Your task to perform on an android device: Search for pizza restaurants on Maps Image 0: 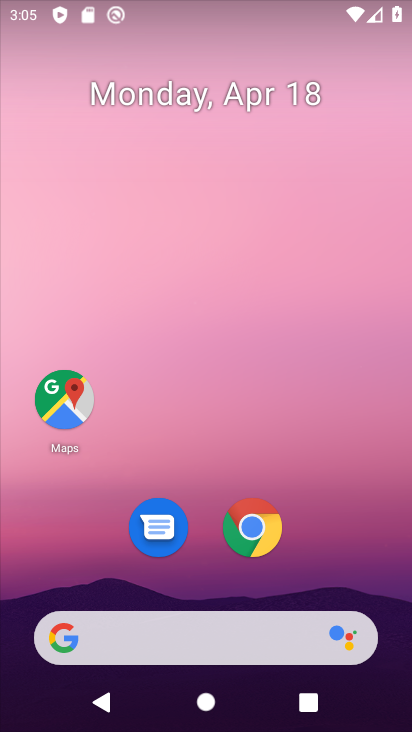
Step 0: click (68, 405)
Your task to perform on an android device: Search for pizza restaurants on Maps Image 1: 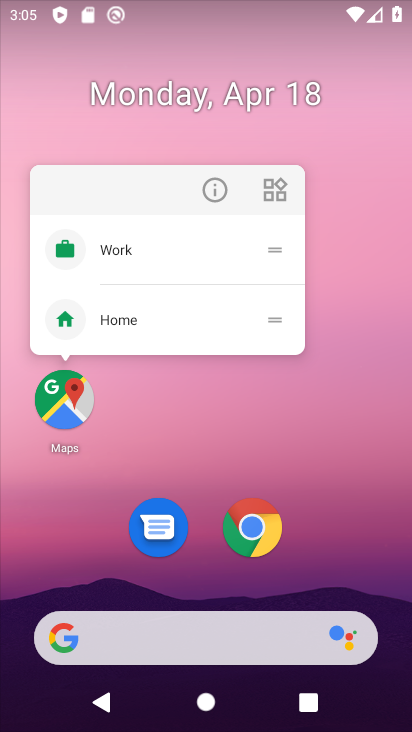
Step 1: click (64, 405)
Your task to perform on an android device: Search for pizza restaurants on Maps Image 2: 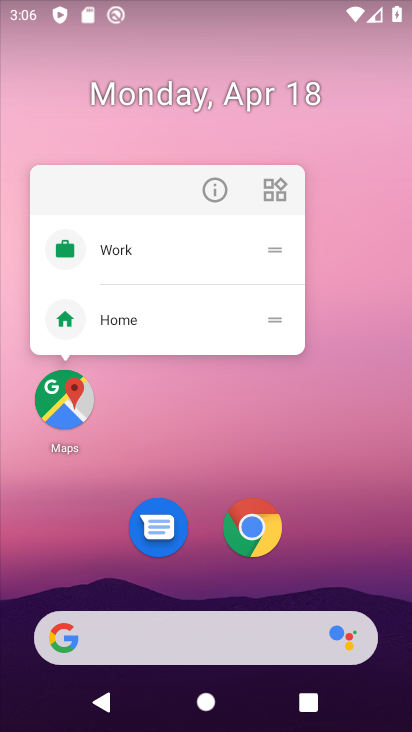
Step 2: click (75, 401)
Your task to perform on an android device: Search for pizza restaurants on Maps Image 3: 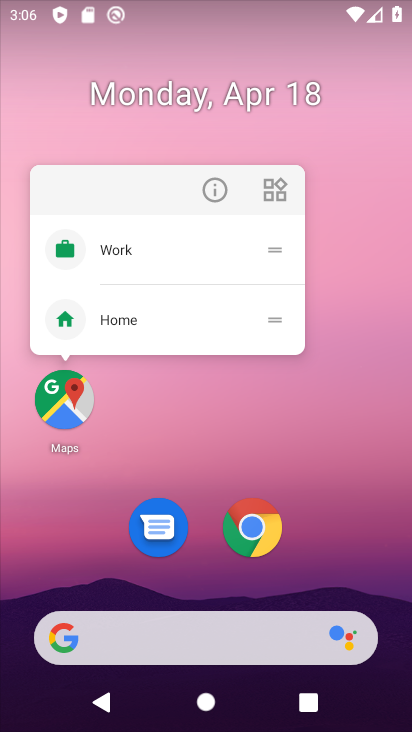
Step 3: click (75, 401)
Your task to perform on an android device: Search for pizza restaurants on Maps Image 4: 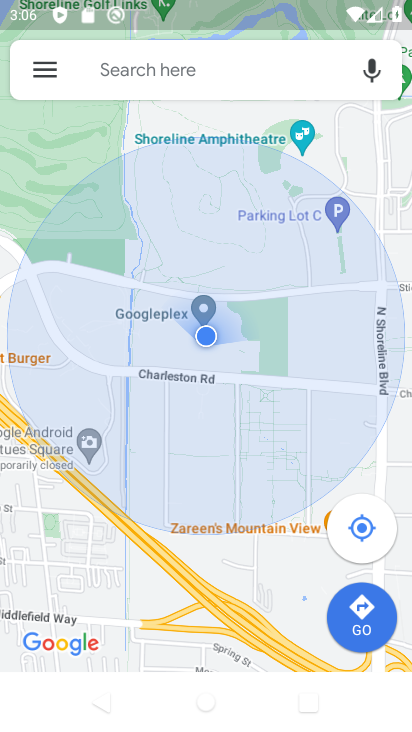
Step 4: click (177, 78)
Your task to perform on an android device: Search for pizza restaurants on Maps Image 5: 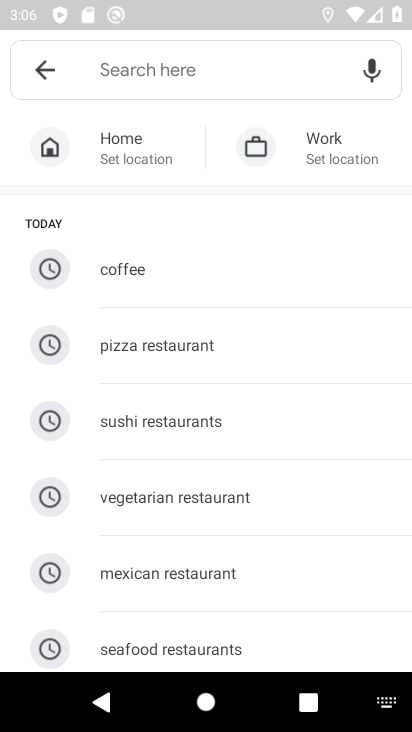
Step 5: click (152, 348)
Your task to perform on an android device: Search for pizza restaurants on Maps Image 6: 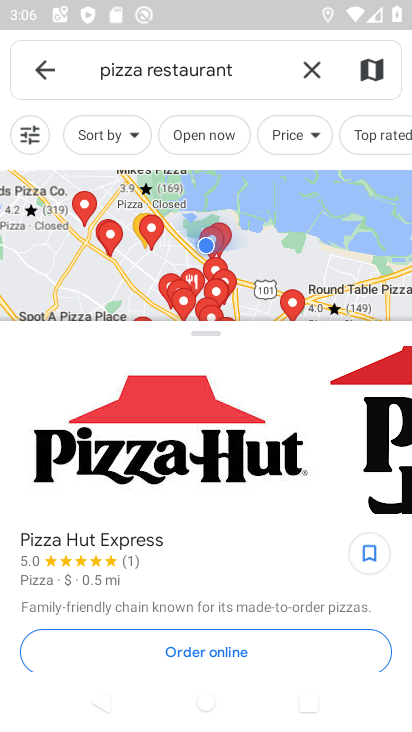
Step 6: task complete